Your task to perform on an android device: Open battery settings Image 0: 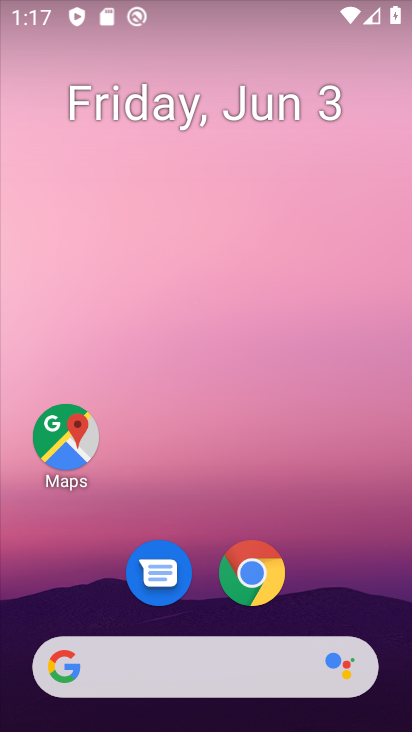
Step 0: task complete